Your task to perform on an android device: Turn on the flashlight Image 0: 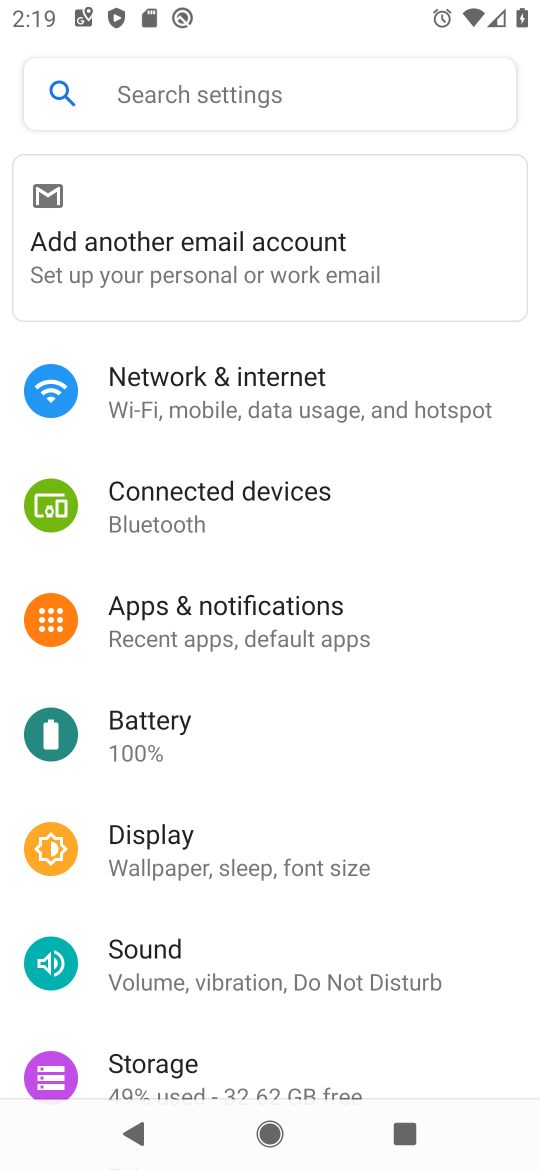
Step 0: drag from (307, 792) to (265, 202)
Your task to perform on an android device: Turn on the flashlight Image 1: 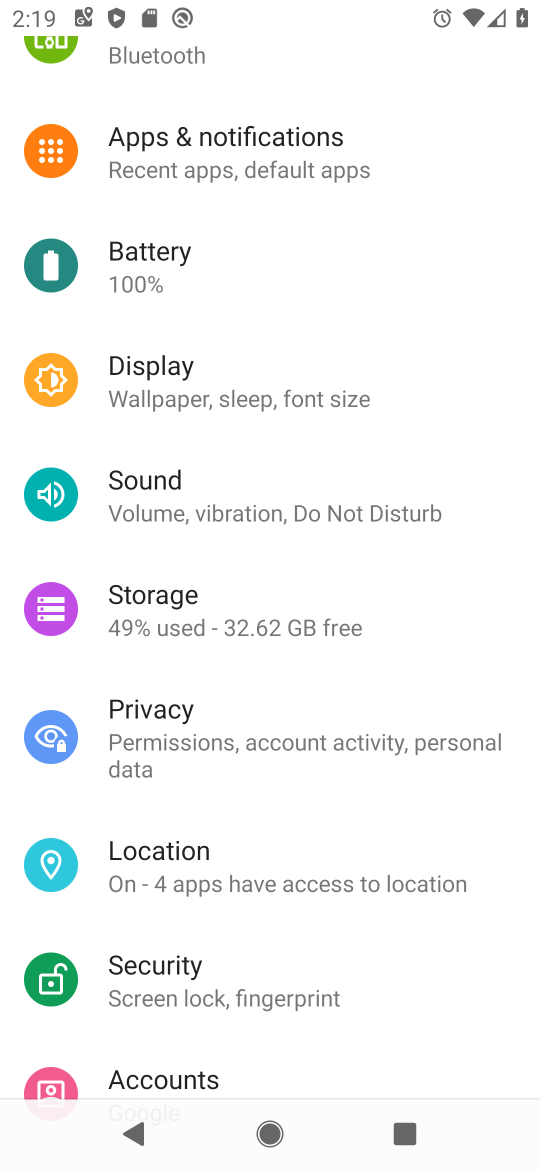
Step 1: task complete